Your task to perform on an android device: set the timer Image 0: 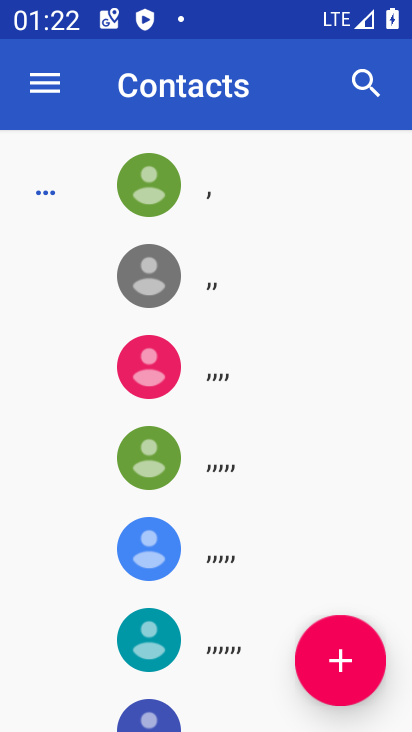
Step 0: press home button
Your task to perform on an android device: set the timer Image 1: 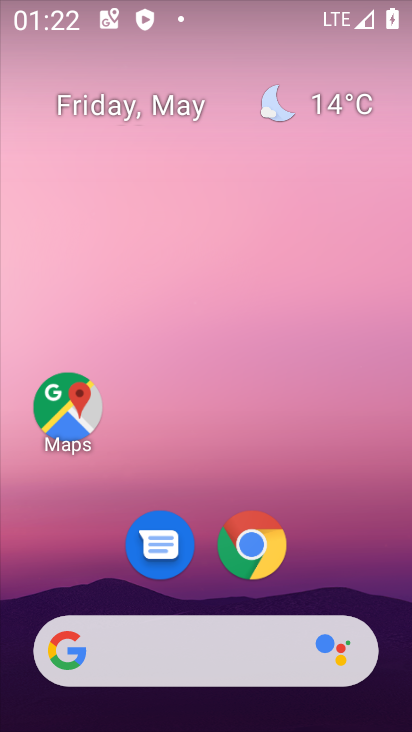
Step 1: drag from (295, 582) to (273, 183)
Your task to perform on an android device: set the timer Image 2: 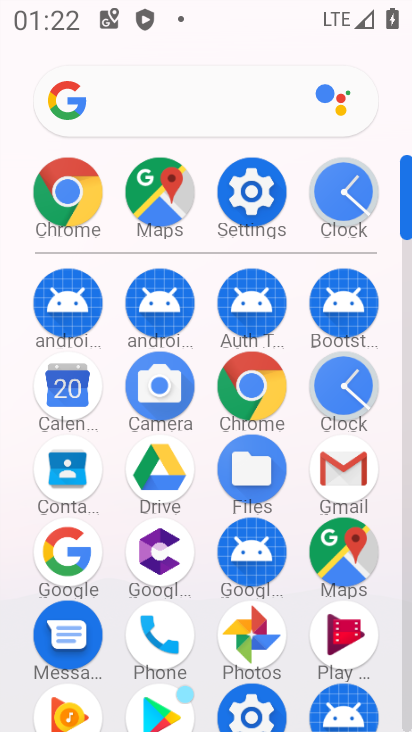
Step 2: click (337, 208)
Your task to perform on an android device: set the timer Image 3: 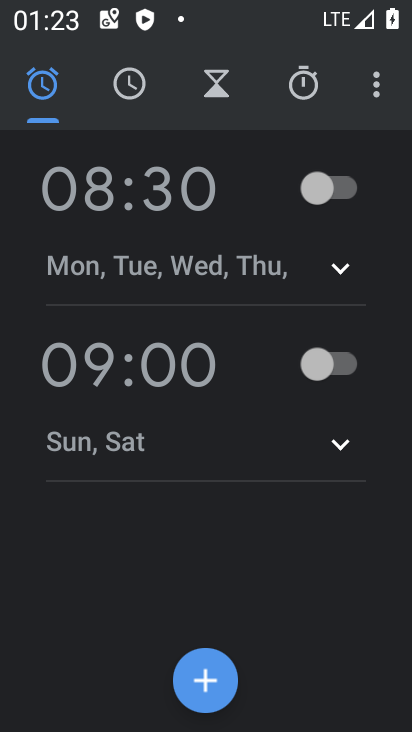
Step 3: click (207, 107)
Your task to perform on an android device: set the timer Image 4: 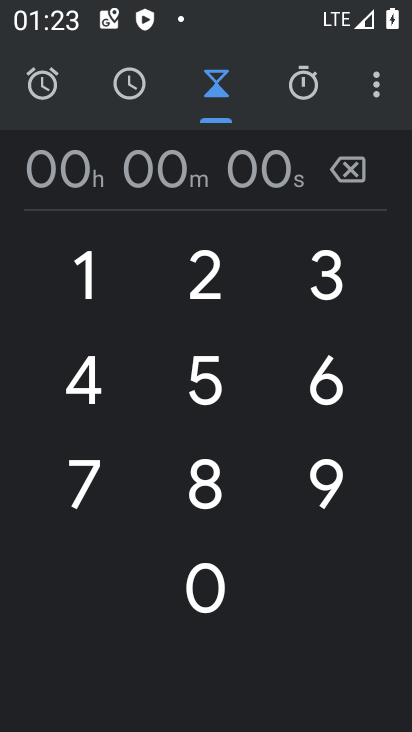
Step 4: click (90, 288)
Your task to perform on an android device: set the timer Image 5: 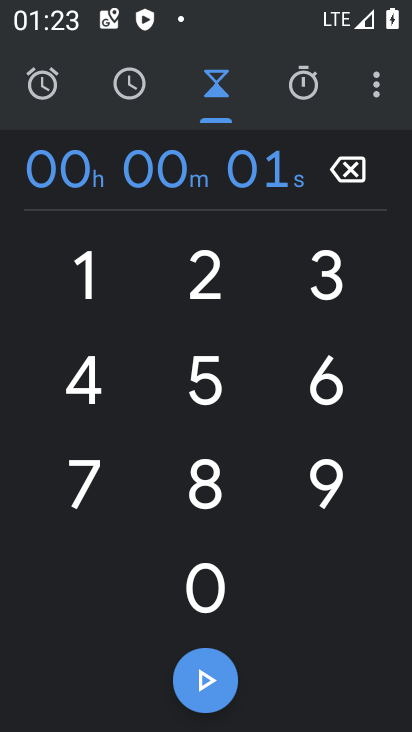
Step 5: click (200, 569)
Your task to perform on an android device: set the timer Image 6: 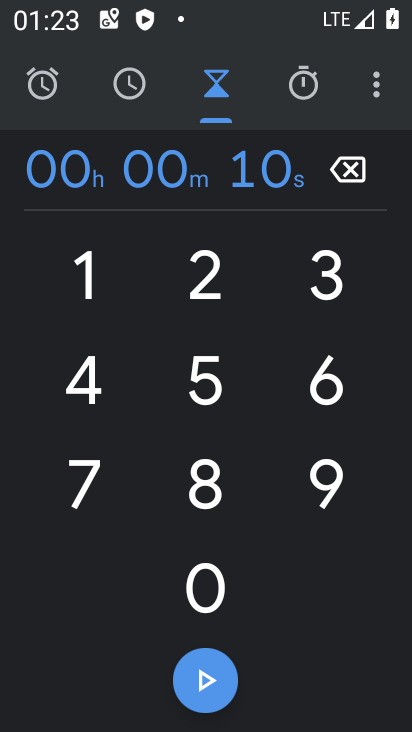
Step 6: click (204, 570)
Your task to perform on an android device: set the timer Image 7: 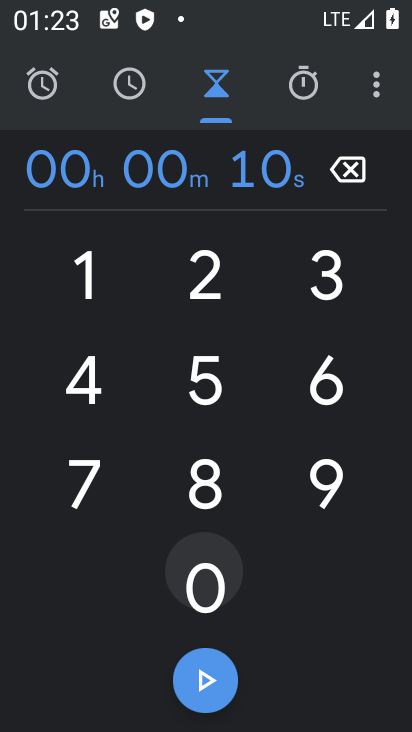
Step 7: click (204, 570)
Your task to perform on an android device: set the timer Image 8: 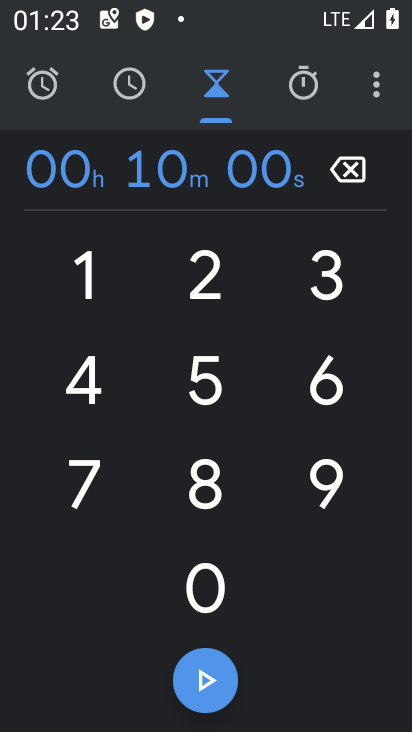
Step 8: click (207, 672)
Your task to perform on an android device: set the timer Image 9: 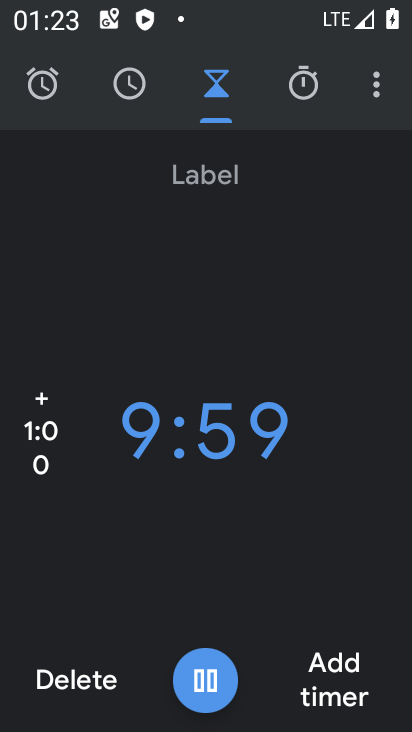
Step 9: click (331, 682)
Your task to perform on an android device: set the timer Image 10: 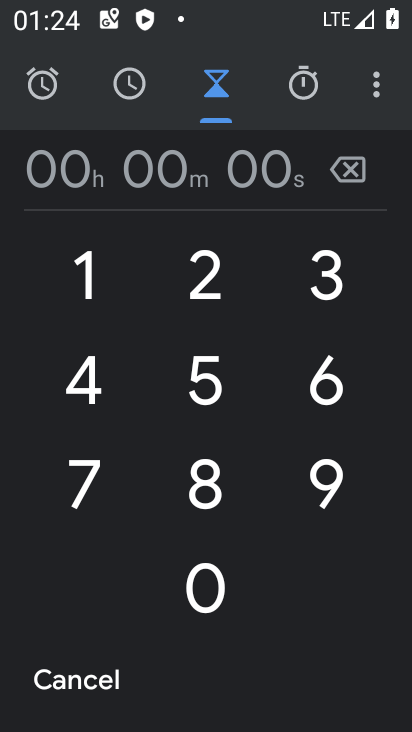
Step 10: task complete